Your task to perform on an android device: check data usage Image 0: 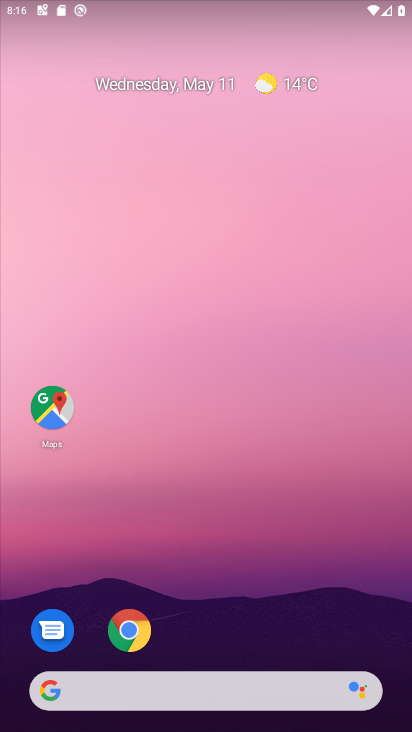
Step 0: drag from (0, 730) to (263, 270)
Your task to perform on an android device: check data usage Image 1: 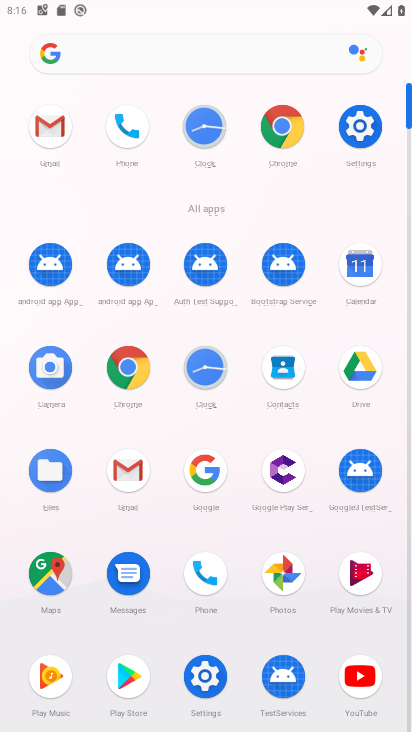
Step 1: click (348, 127)
Your task to perform on an android device: check data usage Image 2: 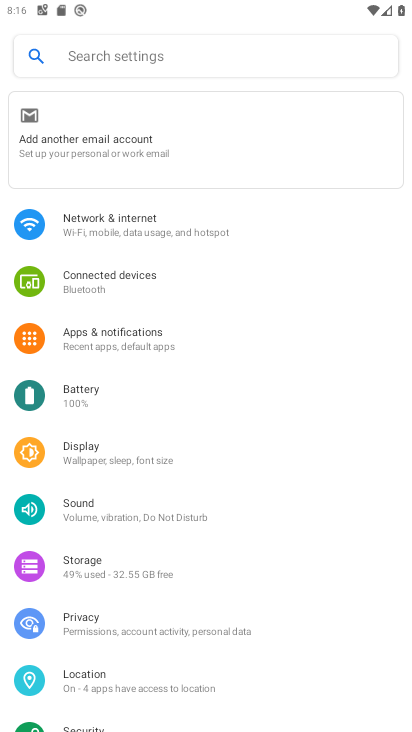
Step 2: click (186, 347)
Your task to perform on an android device: check data usage Image 3: 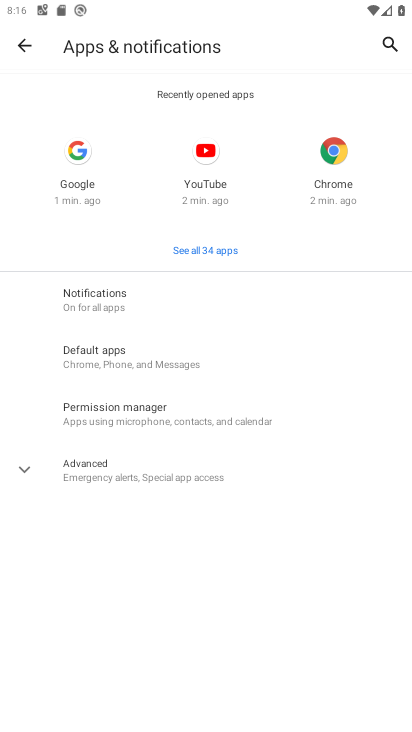
Step 3: press back button
Your task to perform on an android device: check data usage Image 4: 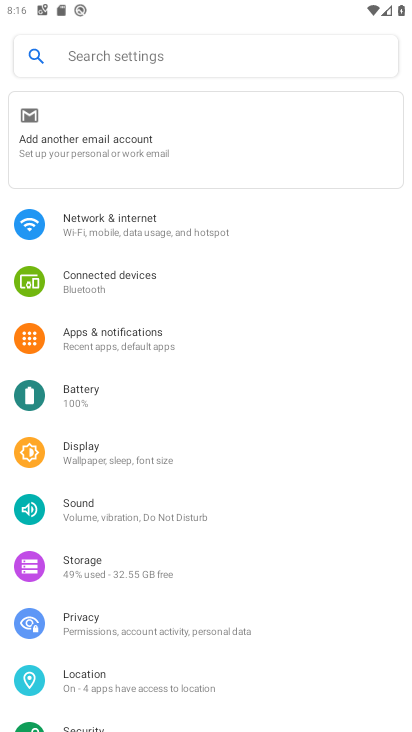
Step 4: click (132, 249)
Your task to perform on an android device: check data usage Image 5: 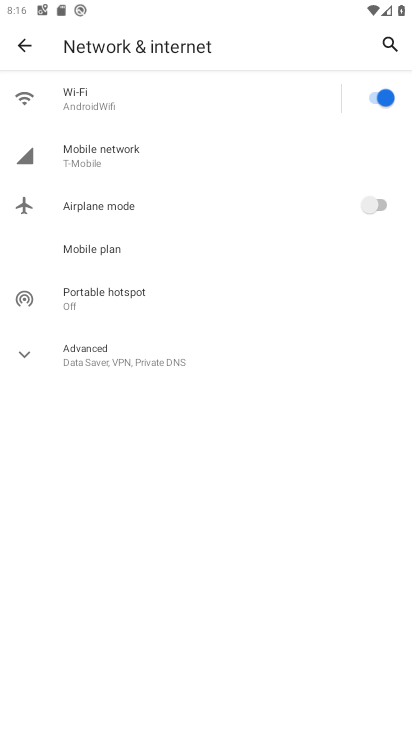
Step 5: click (171, 170)
Your task to perform on an android device: check data usage Image 6: 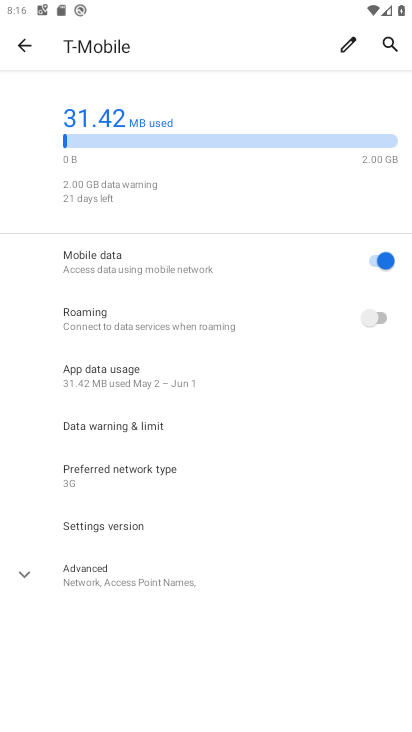
Step 6: task complete